Your task to perform on an android device: delete location history Image 0: 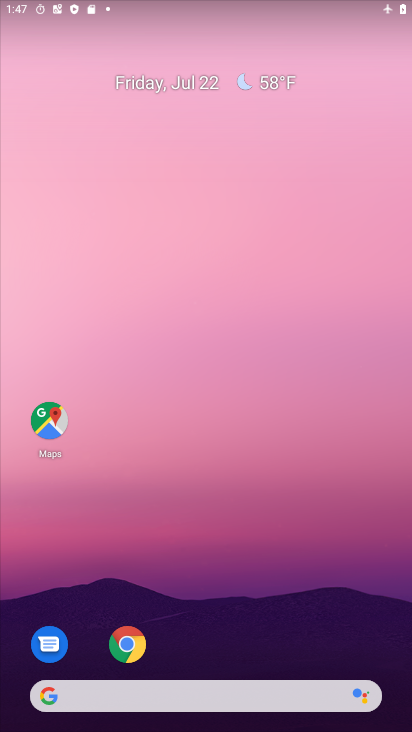
Step 0: drag from (229, 637) to (113, 214)
Your task to perform on an android device: delete location history Image 1: 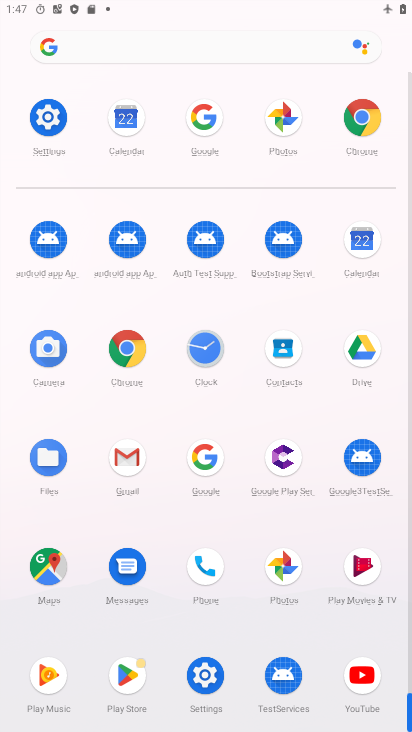
Step 1: click (190, 662)
Your task to perform on an android device: delete location history Image 2: 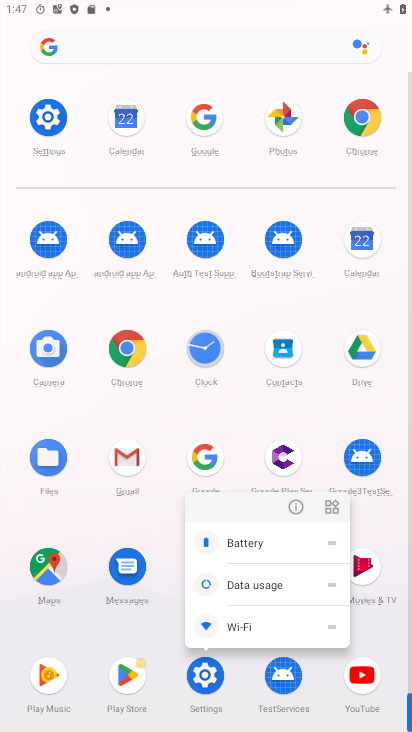
Step 2: click (290, 509)
Your task to perform on an android device: delete location history Image 3: 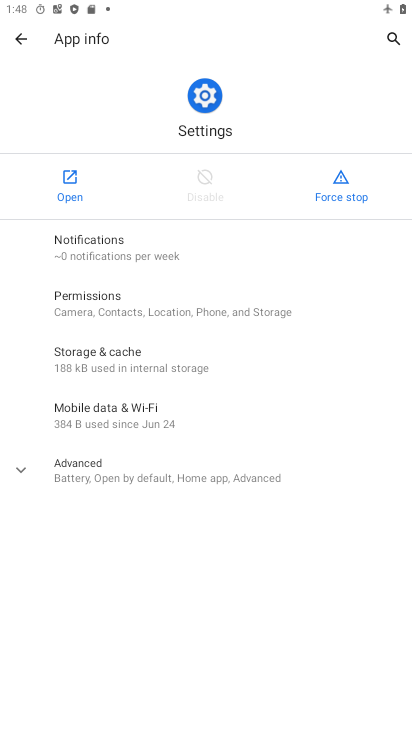
Step 3: click (72, 167)
Your task to perform on an android device: delete location history Image 4: 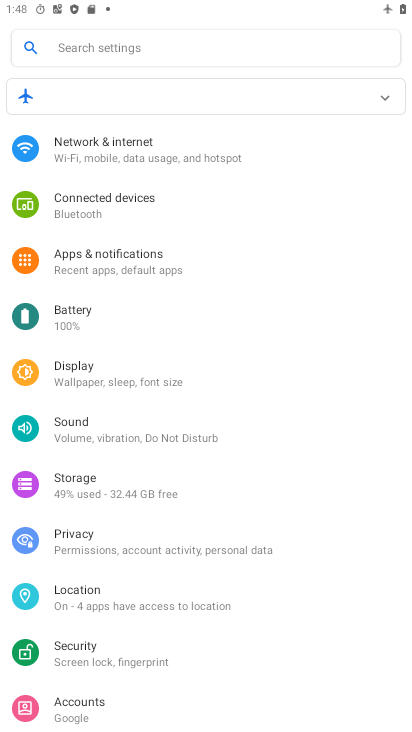
Step 4: click (91, 587)
Your task to perform on an android device: delete location history Image 5: 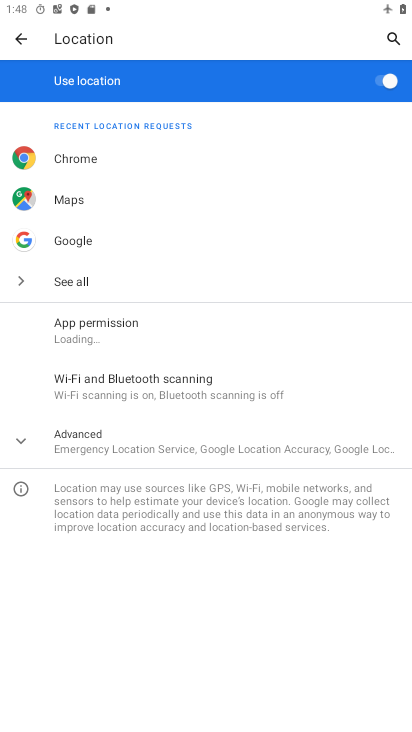
Step 5: drag from (151, 591) to (238, 244)
Your task to perform on an android device: delete location history Image 6: 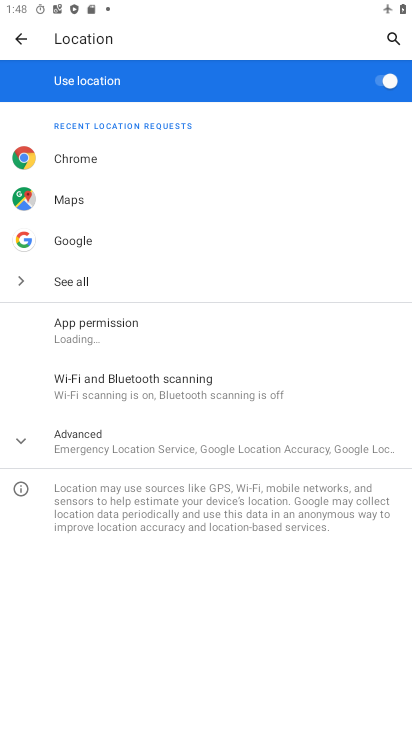
Step 6: click (103, 452)
Your task to perform on an android device: delete location history Image 7: 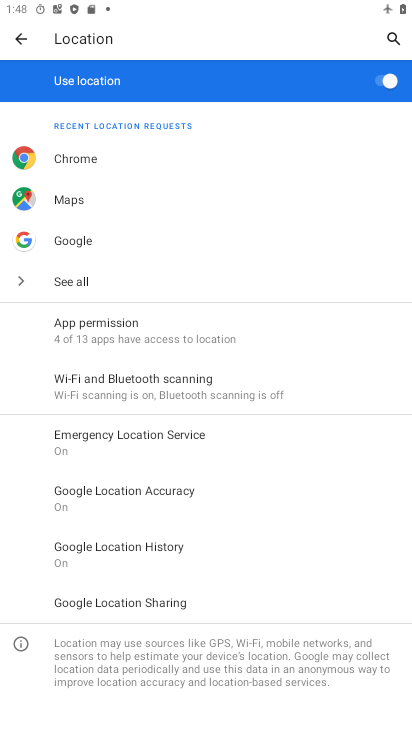
Step 7: click (140, 550)
Your task to perform on an android device: delete location history Image 8: 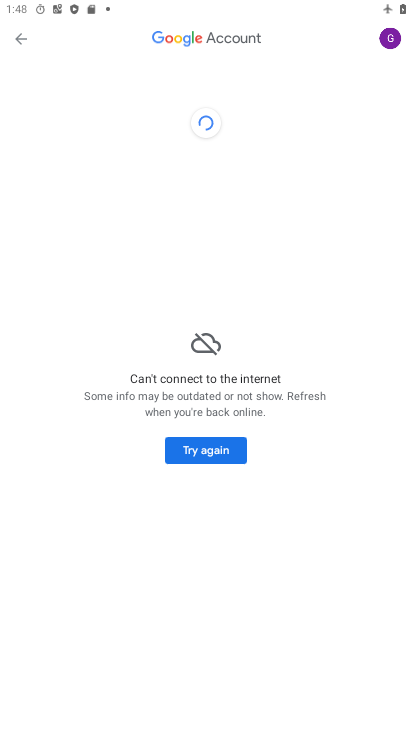
Step 8: drag from (239, 640) to (292, 429)
Your task to perform on an android device: delete location history Image 9: 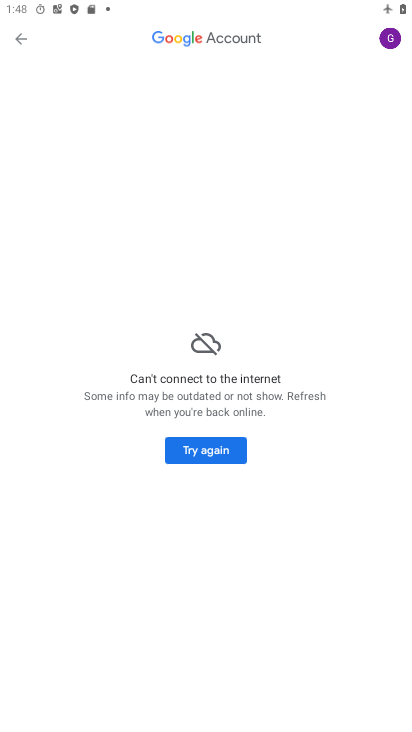
Step 9: click (207, 453)
Your task to perform on an android device: delete location history Image 10: 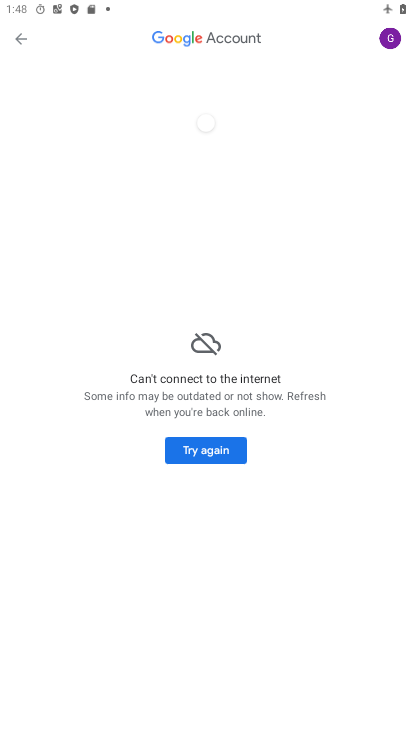
Step 10: task complete